Your task to perform on an android device: Search for pizza restaurants on Maps Image 0: 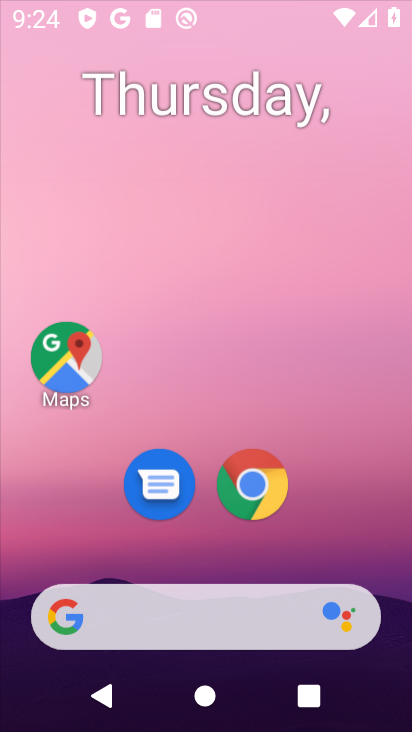
Step 0: drag from (226, 71) to (298, 13)
Your task to perform on an android device: Search for pizza restaurants on Maps Image 1: 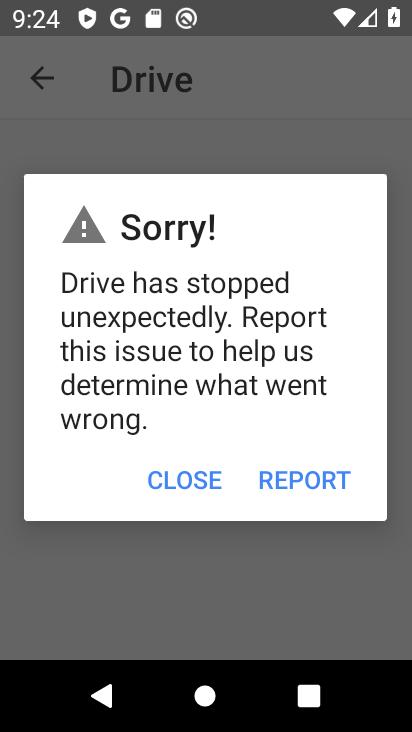
Step 1: press home button
Your task to perform on an android device: Search for pizza restaurants on Maps Image 2: 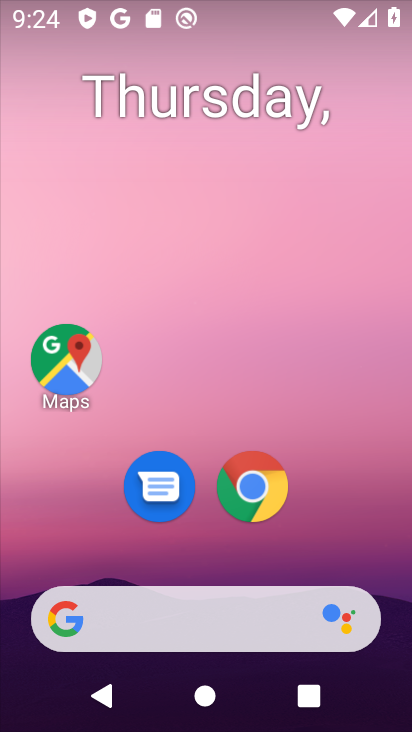
Step 2: click (73, 363)
Your task to perform on an android device: Search for pizza restaurants on Maps Image 3: 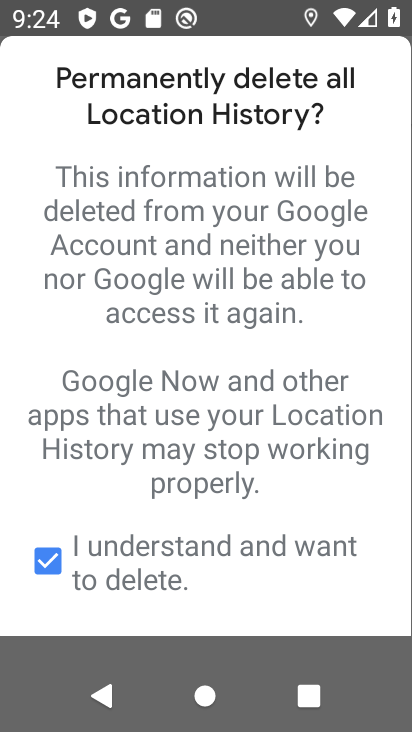
Step 3: press back button
Your task to perform on an android device: Search for pizza restaurants on Maps Image 4: 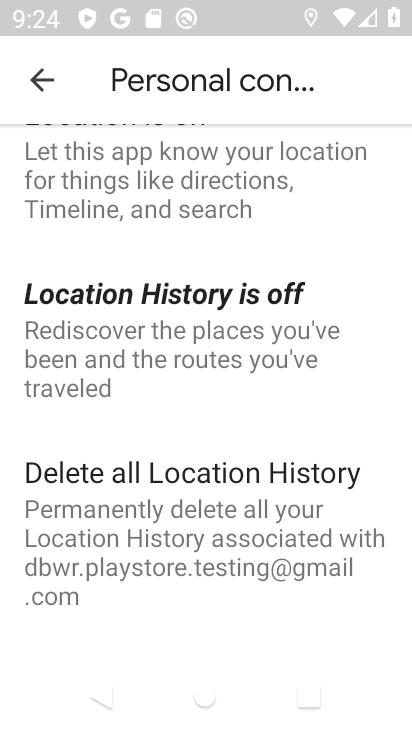
Step 4: click (45, 74)
Your task to perform on an android device: Search for pizza restaurants on Maps Image 5: 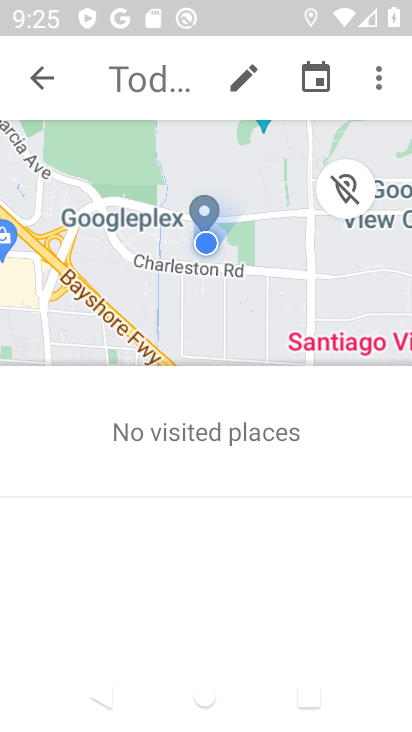
Step 5: click (50, 72)
Your task to perform on an android device: Search for pizza restaurants on Maps Image 6: 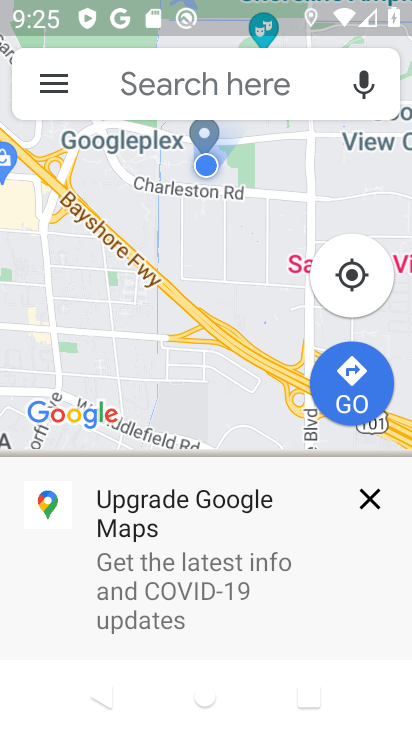
Step 6: click (182, 88)
Your task to perform on an android device: Search for pizza restaurants on Maps Image 7: 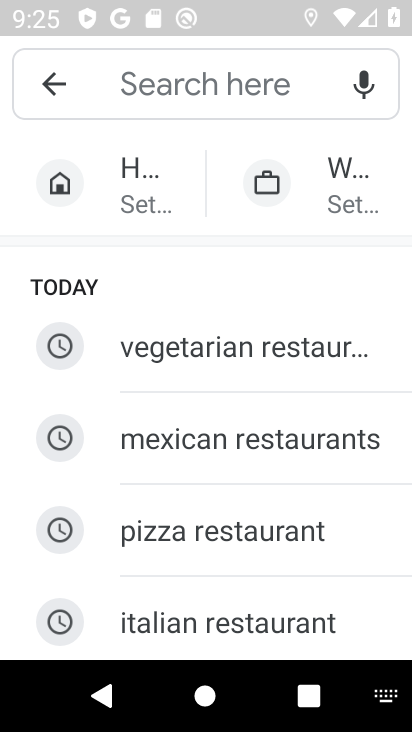
Step 7: type "pizza restaurants"
Your task to perform on an android device: Search for pizza restaurants on Maps Image 8: 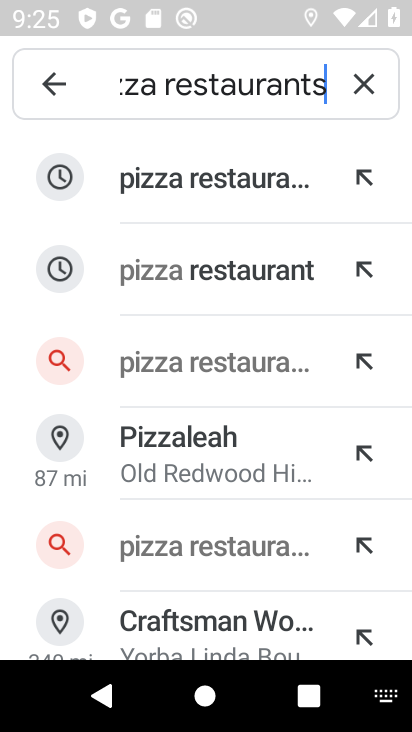
Step 8: click (253, 185)
Your task to perform on an android device: Search for pizza restaurants on Maps Image 9: 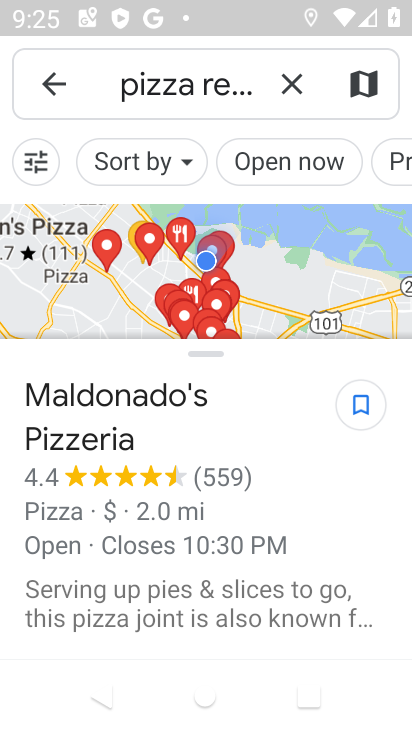
Step 9: task complete